Your task to perform on an android device: turn notification dots off Image 0: 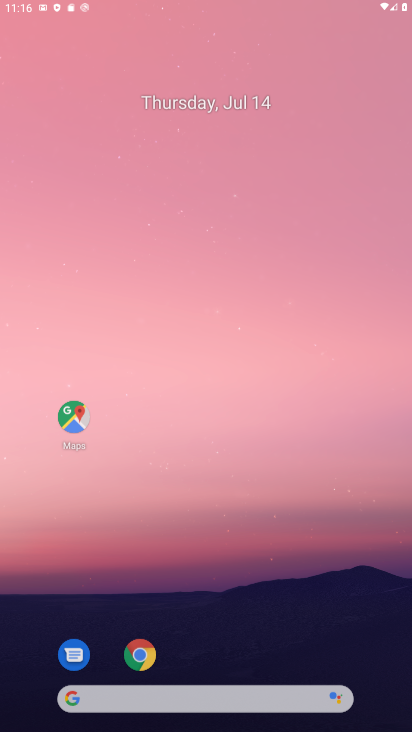
Step 0: press home button
Your task to perform on an android device: turn notification dots off Image 1: 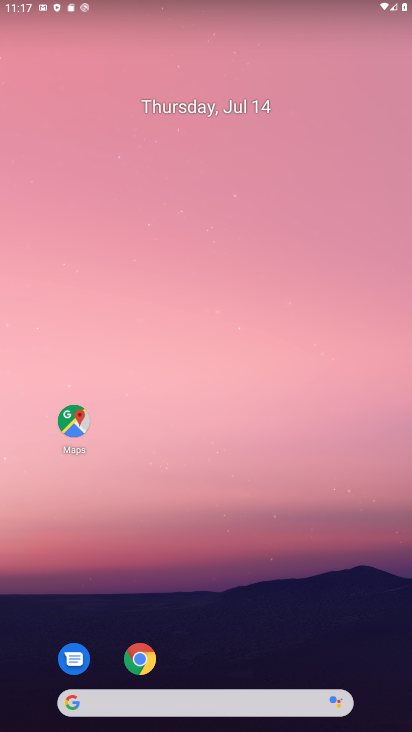
Step 1: drag from (197, 659) to (291, 223)
Your task to perform on an android device: turn notification dots off Image 2: 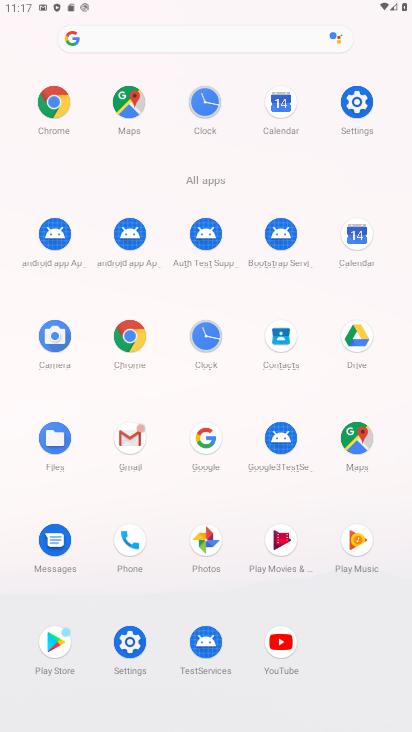
Step 2: click (356, 87)
Your task to perform on an android device: turn notification dots off Image 3: 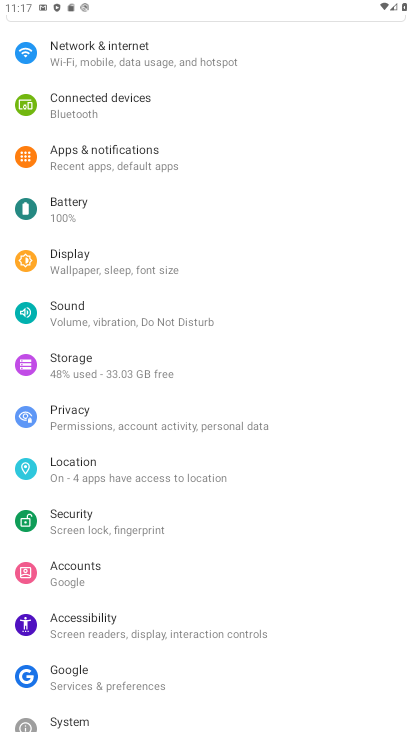
Step 3: drag from (147, 77) to (117, 568)
Your task to perform on an android device: turn notification dots off Image 4: 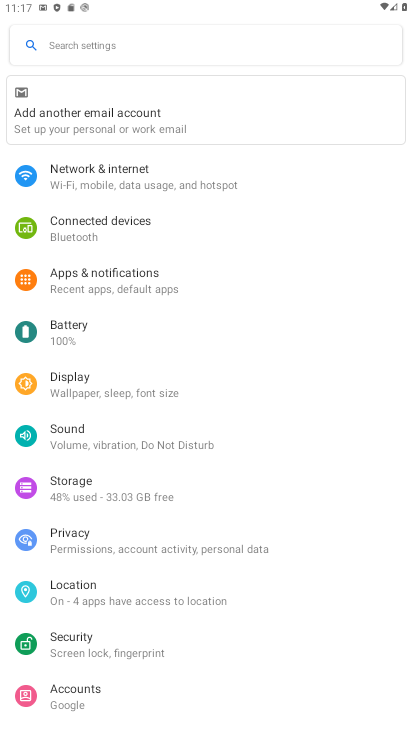
Step 4: click (216, 33)
Your task to perform on an android device: turn notification dots off Image 5: 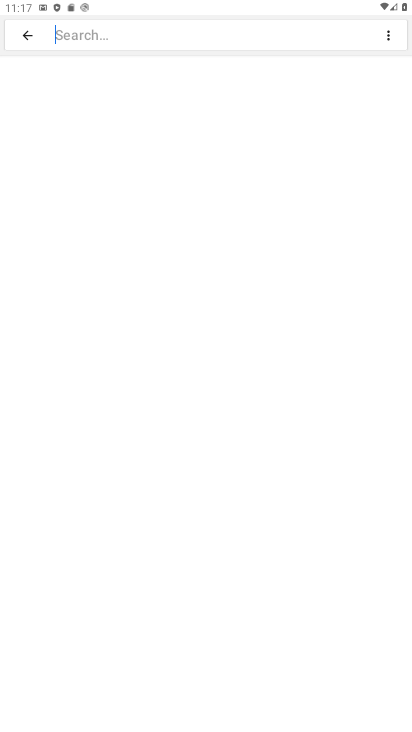
Step 5: type "notification dots "
Your task to perform on an android device: turn notification dots off Image 6: 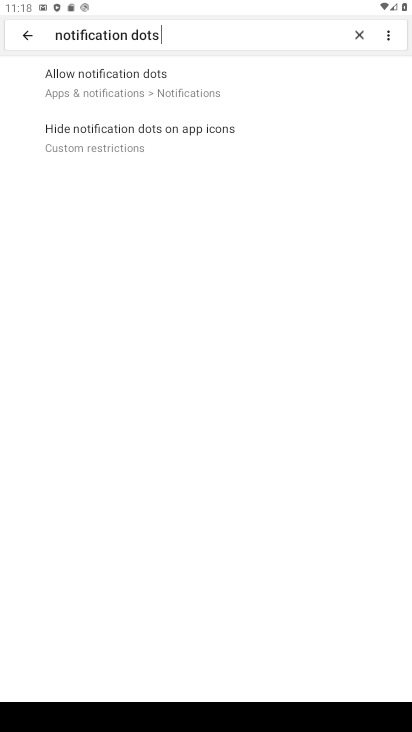
Step 6: click (174, 83)
Your task to perform on an android device: turn notification dots off Image 7: 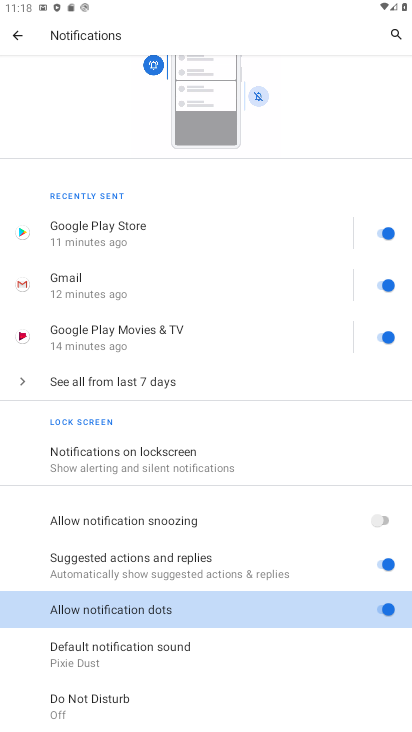
Step 7: click (379, 609)
Your task to perform on an android device: turn notification dots off Image 8: 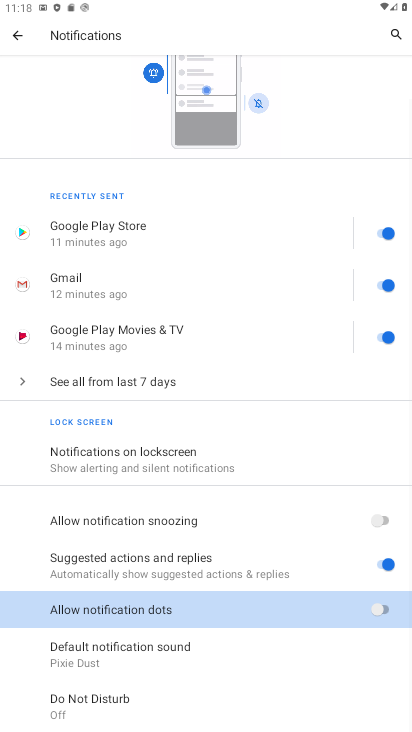
Step 8: task complete